Your task to perform on an android device: check the backup settings in the google photos Image 0: 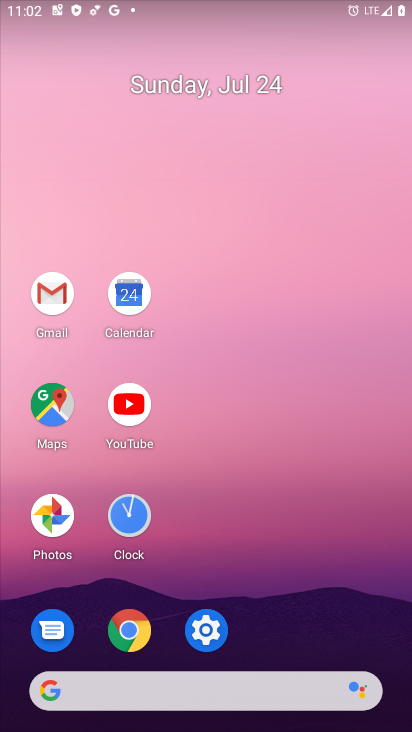
Step 0: click (52, 514)
Your task to perform on an android device: check the backup settings in the google photos Image 1: 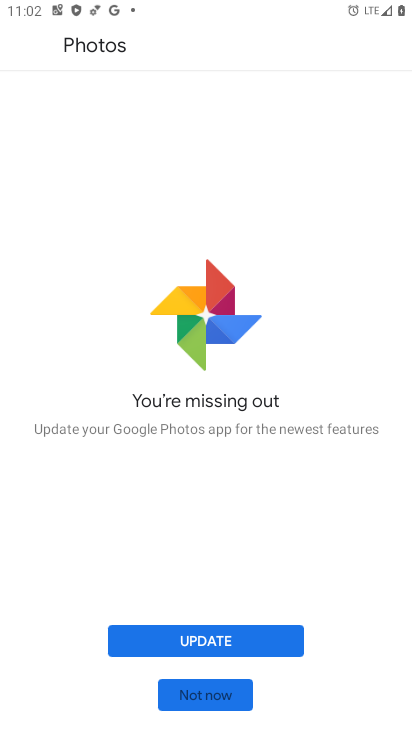
Step 1: click (204, 634)
Your task to perform on an android device: check the backup settings in the google photos Image 2: 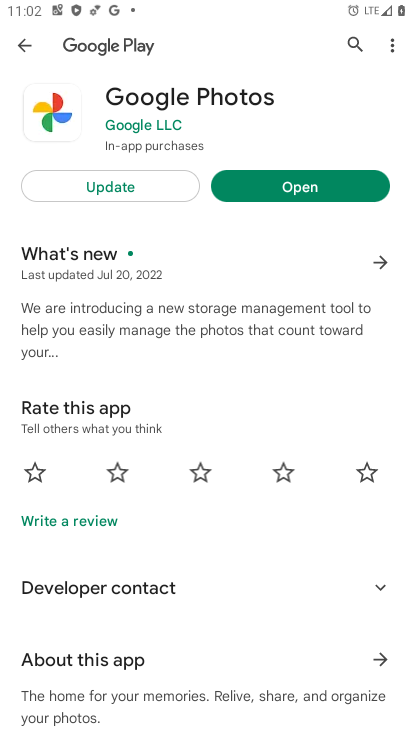
Step 2: click (108, 185)
Your task to perform on an android device: check the backup settings in the google photos Image 3: 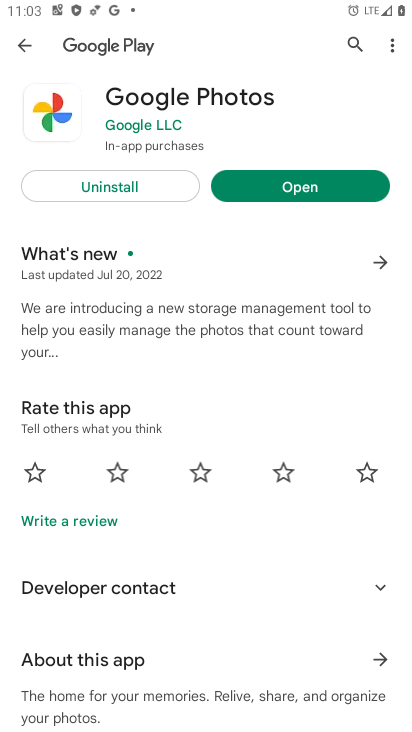
Step 3: click (307, 187)
Your task to perform on an android device: check the backup settings in the google photos Image 4: 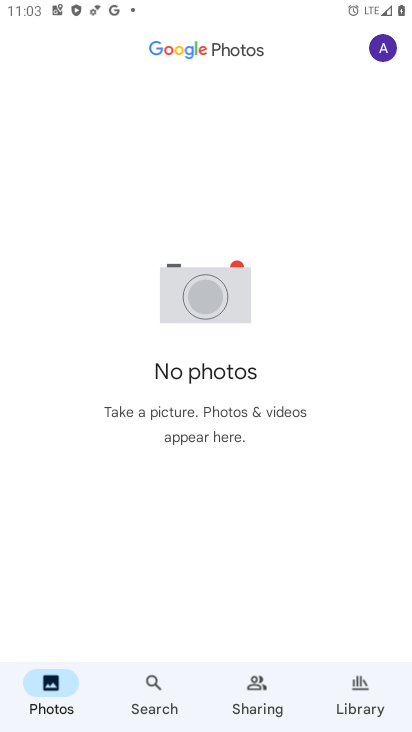
Step 4: click (356, 686)
Your task to perform on an android device: check the backup settings in the google photos Image 5: 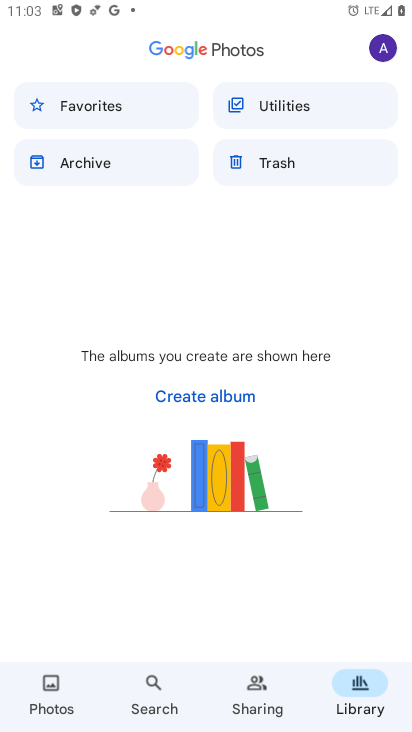
Step 5: click (388, 38)
Your task to perform on an android device: check the backup settings in the google photos Image 6: 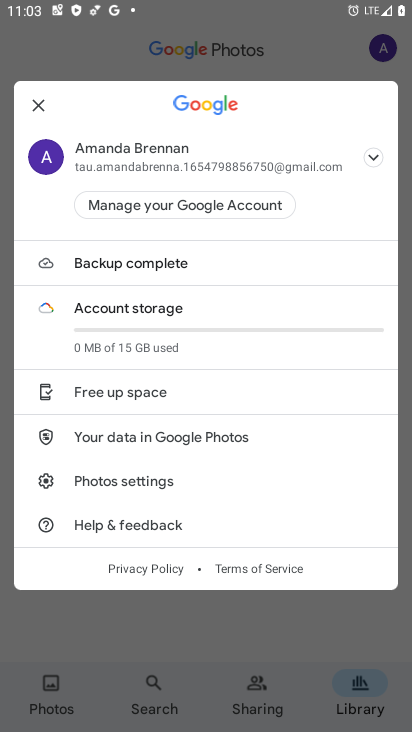
Step 6: click (111, 270)
Your task to perform on an android device: check the backup settings in the google photos Image 7: 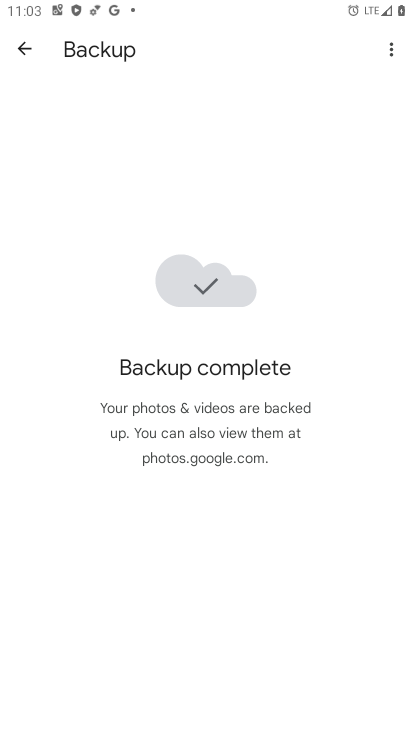
Step 7: task complete